Your task to perform on an android device: add a label to a message in the gmail app Image 0: 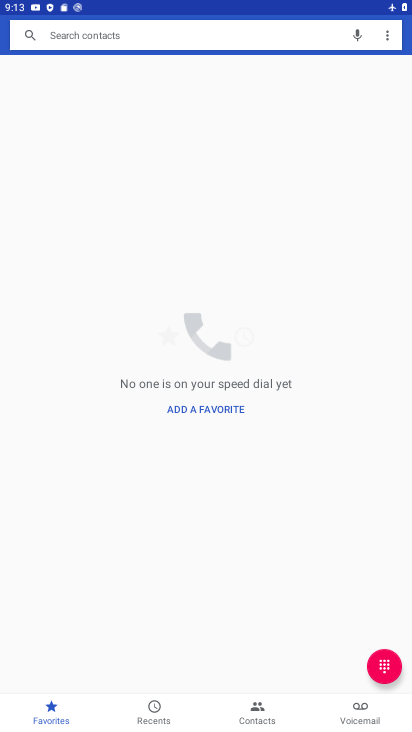
Step 0: press home button
Your task to perform on an android device: add a label to a message in the gmail app Image 1: 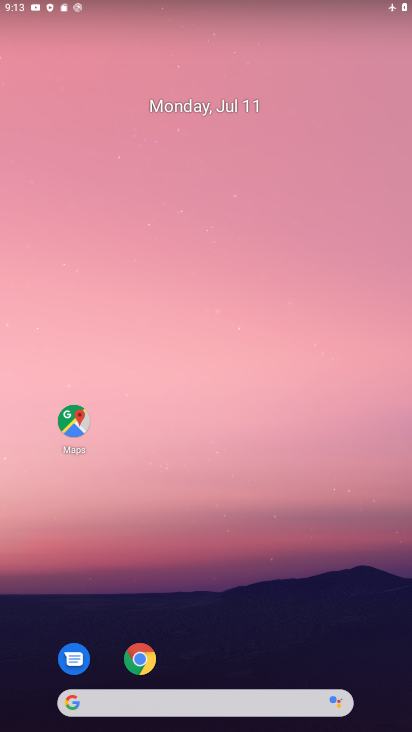
Step 1: drag from (228, 653) to (224, 248)
Your task to perform on an android device: add a label to a message in the gmail app Image 2: 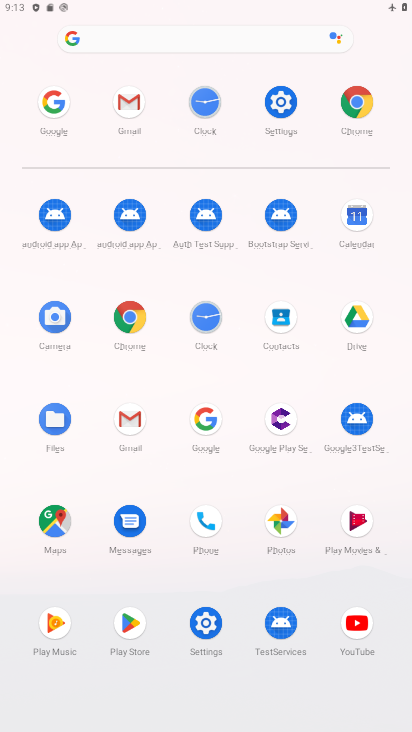
Step 2: click (122, 109)
Your task to perform on an android device: add a label to a message in the gmail app Image 3: 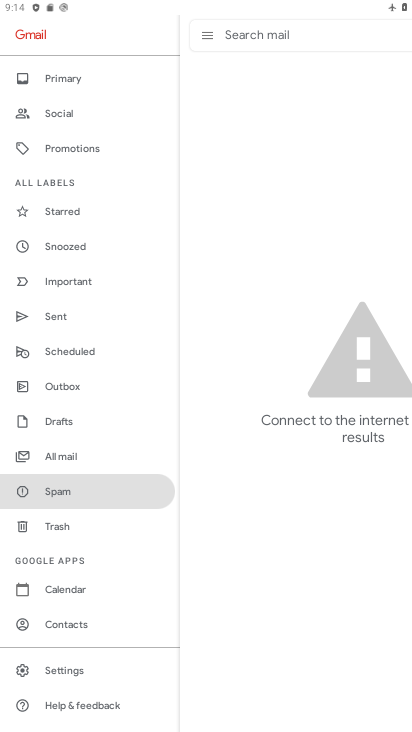
Step 3: click (79, 454)
Your task to perform on an android device: add a label to a message in the gmail app Image 4: 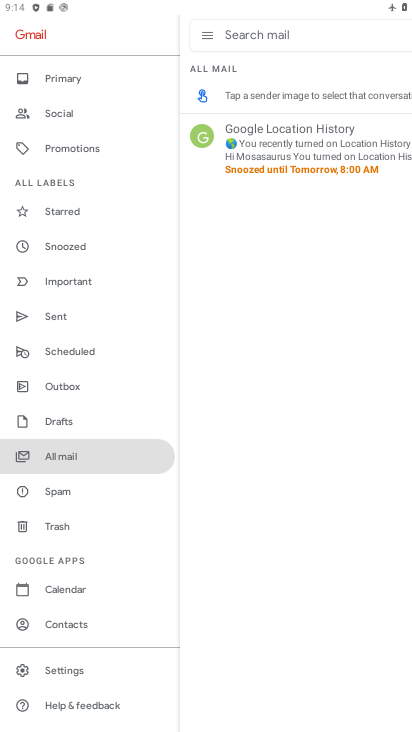
Step 4: click (287, 160)
Your task to perform on an android device: add a label to a message in the gmail app Image 5: 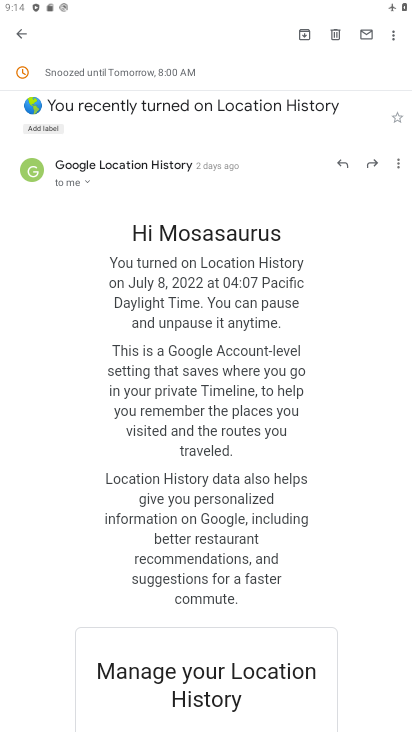
Step 5: click (392, 30)
Your task to perform on an android device: add a label to a message in the gmail app Image 6: 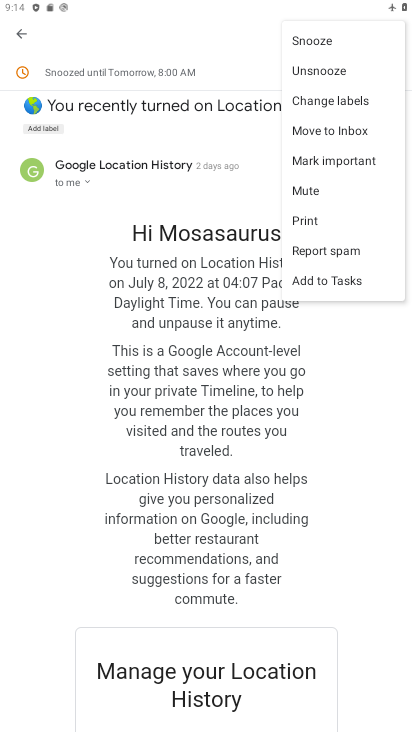
Step 6: click (355, 106)
Your task to perform on an android device: add a label to a message in the gmail app Image 7: 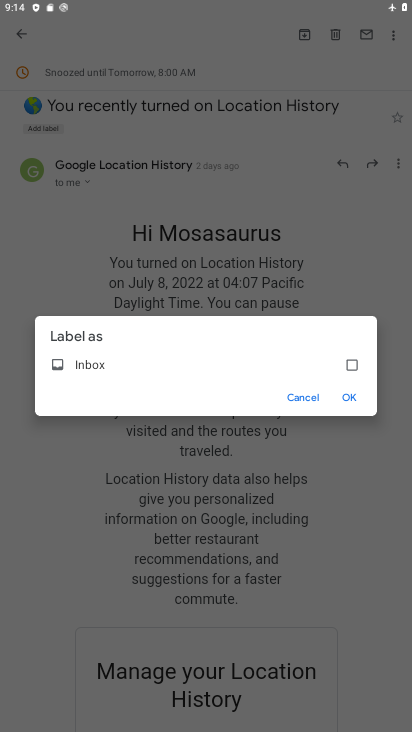
Step 7: click (350, 366)
Your task to perform on an android device: add a label to a message in the gmail app Image 8: 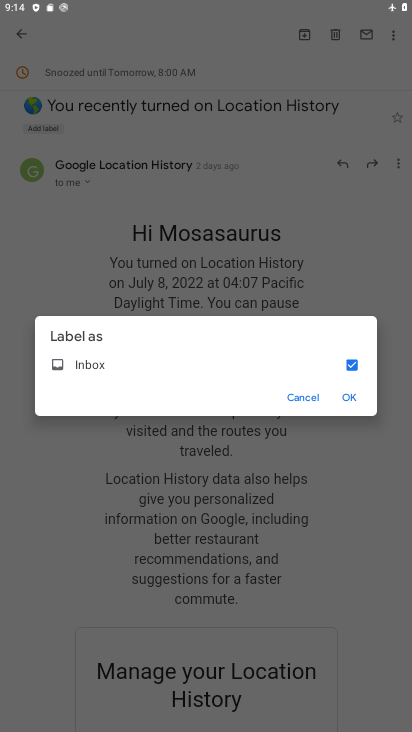
Step 8: click (347, 396)
Your task to perform on an android device: add a label to a message in the gmail app Image 9: 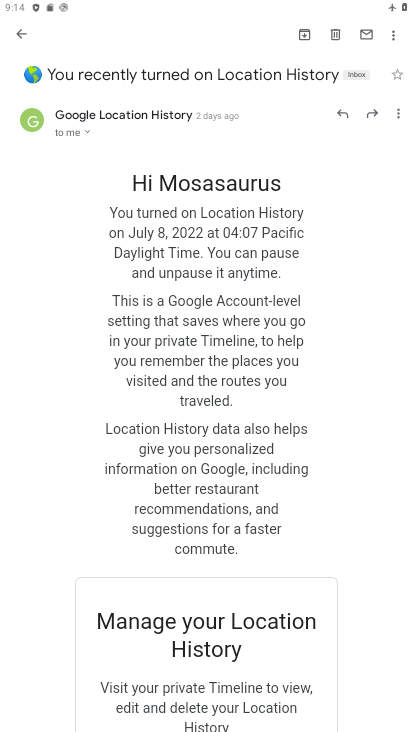
Step 9: task complete